Your task to perform on an android device: turn off location Image 0: 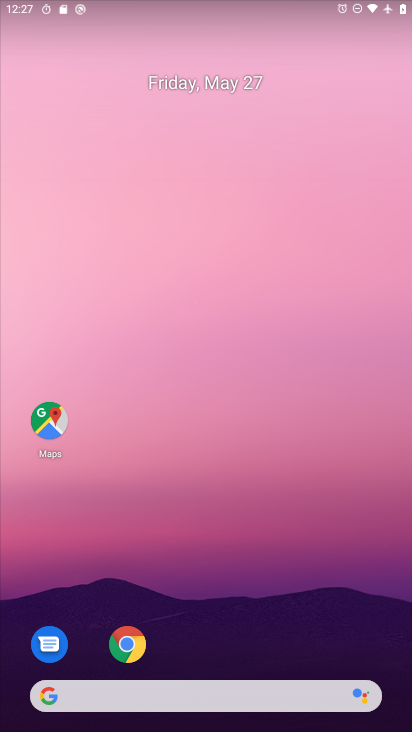
Step 0: drag from (219, 654) to (233, 189)
Your task to perform on an android device: turn off location Image 1: 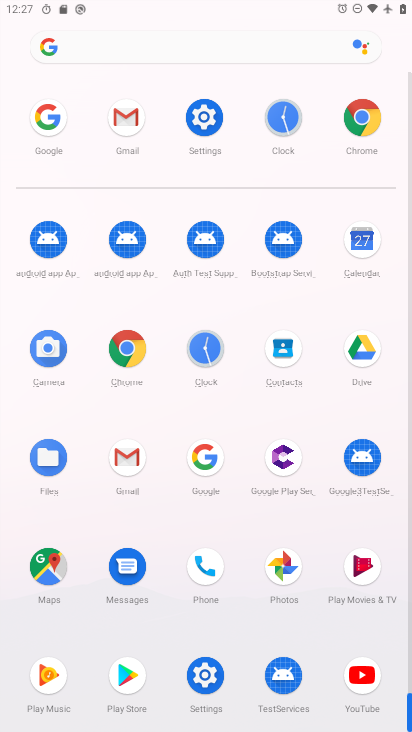
Step 1: click (189, 117)
Your task to perform on an android device: turn off location Image 2: 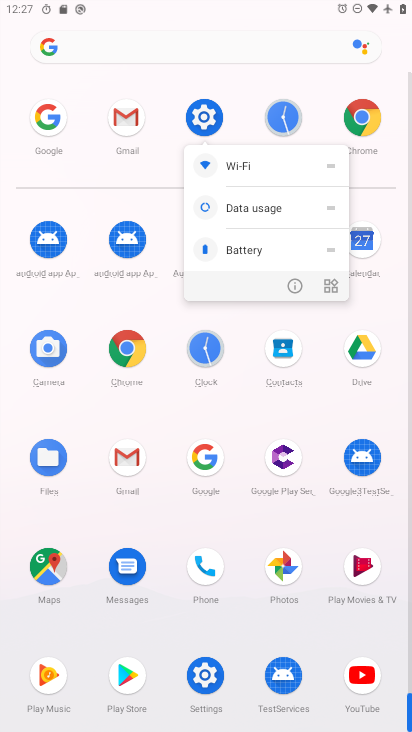
Step 2: click (189, 117)
Your task to perform on an android device: turn off location Image 3: 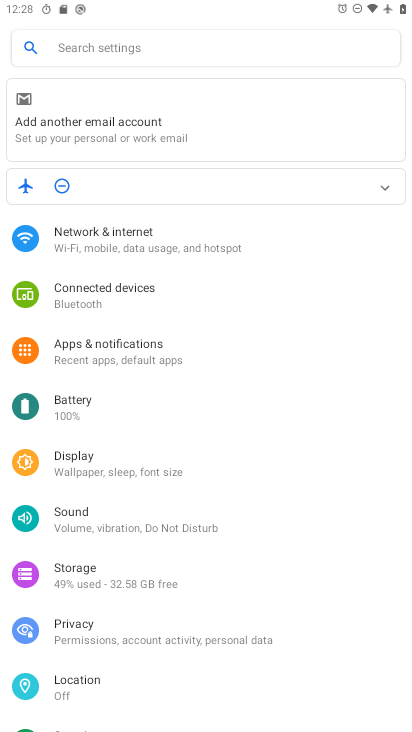
Step 3: drag from (182, 614) to (203, 388)
Your task to perform on an android device: turn off location Image 4: 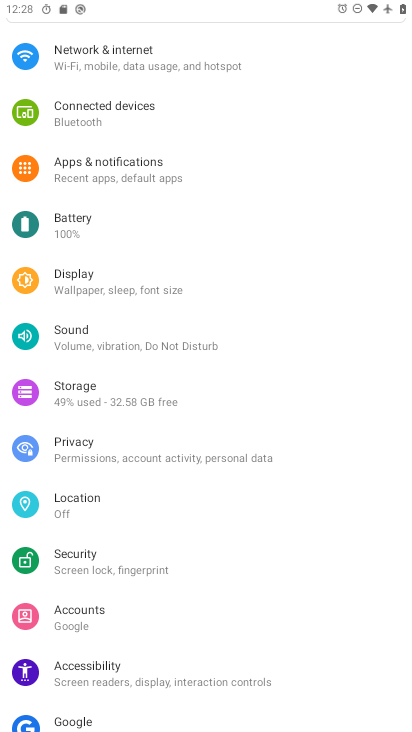
Step 4: click (136, 525)
Your task to perform on an android device: turn off location Image 5: 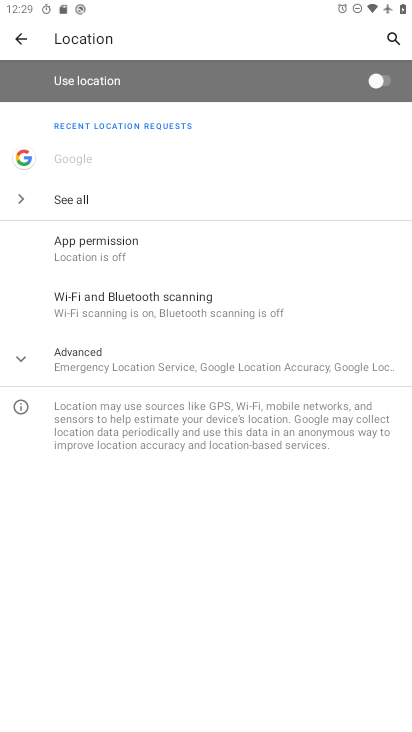
Step 5: task complete